Your task to perform on an android device: See recent photos Image 0: 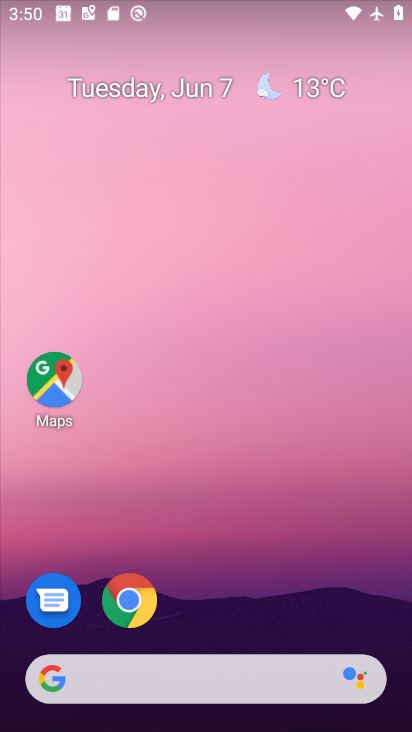
Step 0: drag from (297, 537) to (260, 160)
Your task to perform on an android device: See recent photos Image 1: 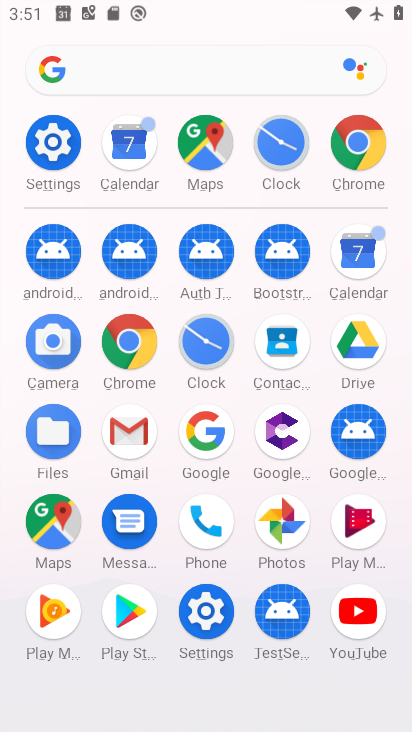
Step 1: click (276, 526)
Your task to perform on an android device: See recent photos Image 2: 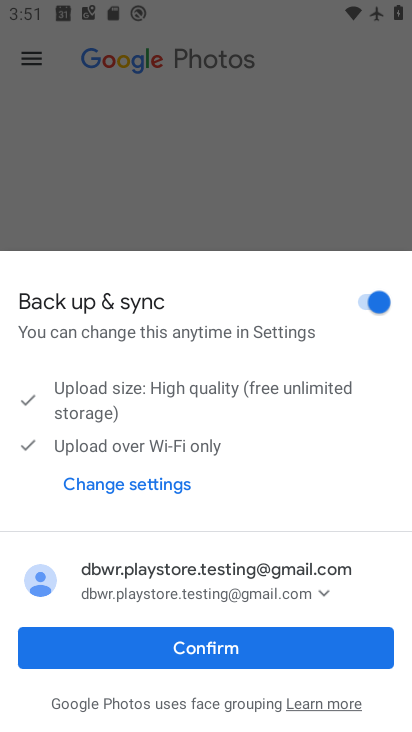
Step 2: click (262, 651)
Your task to perform on an android device: See recent photos Image 3: 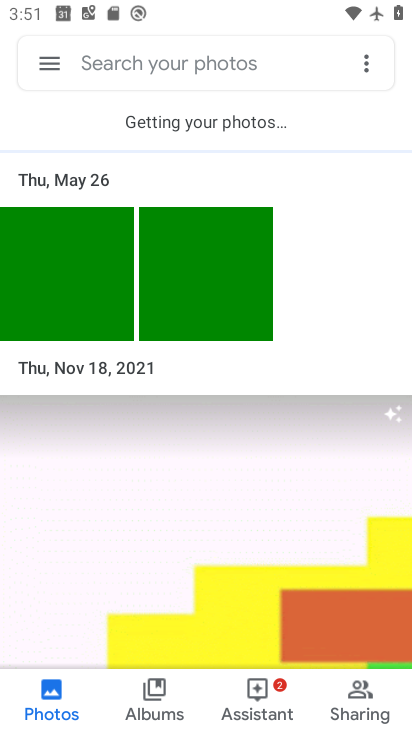
Step 3: task complete